Your task to perform on an android device: Open sound settings Image 0: 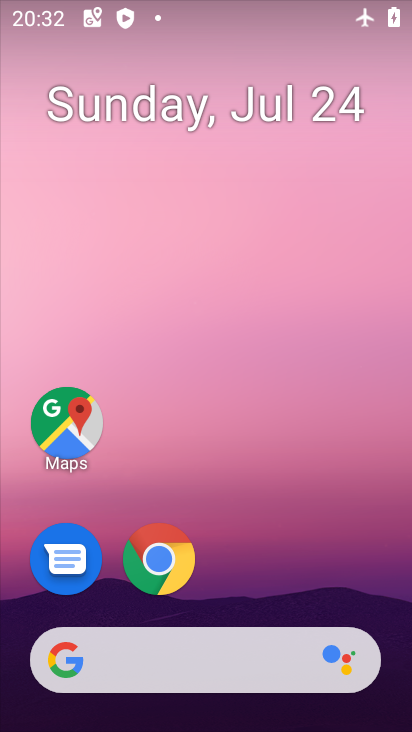
Step 0: press home button
Your task to perform on an android device: Open sound settings Image 1: 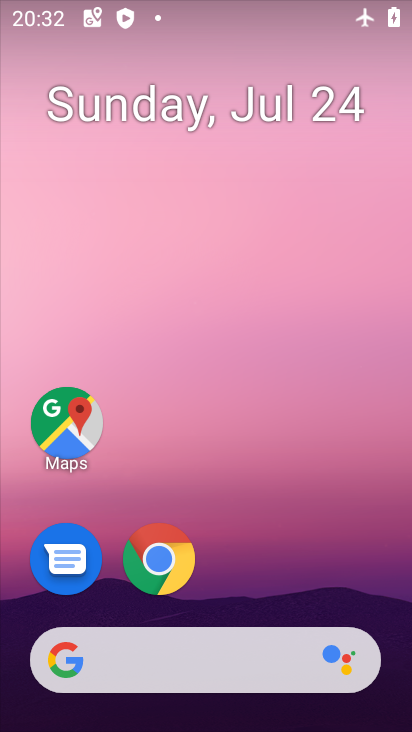
Step 1: drag from (374, 569) to (373, 95)
Your task to perform on an android device: Open sound settings Image 2: 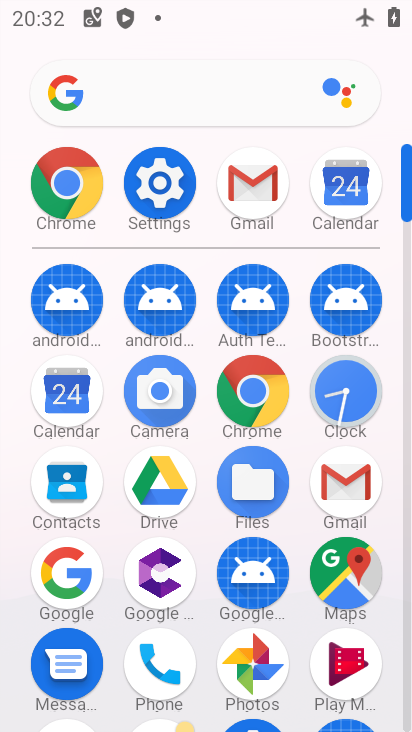
Step 2: click (171, 194)
Your task to perform on an android device: Open sound settings Image 3: 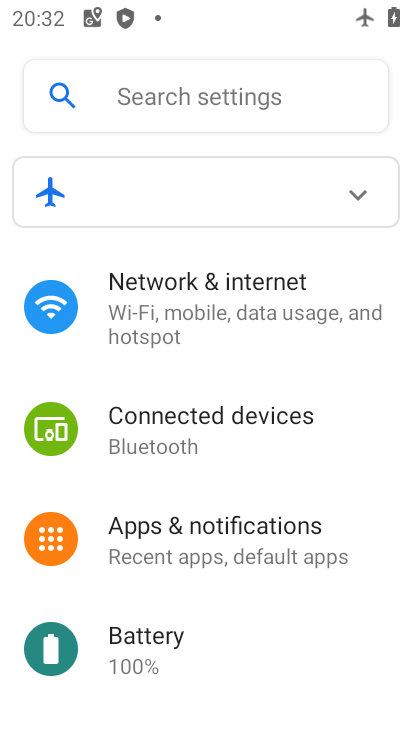
Step 3: drag from (365, 498) to (365, 406)
Your task to perform on an android device: Open sound settings Image 4: 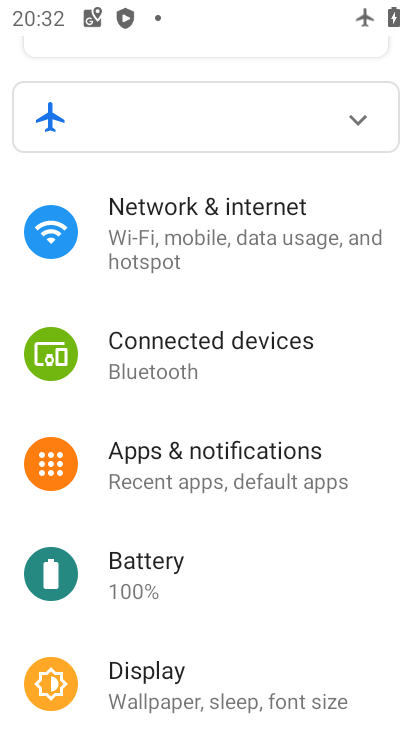
Step 4: drag from (377, 511) to (374, 379)
Your task to perform on an android device: Open sound settings Image 5: 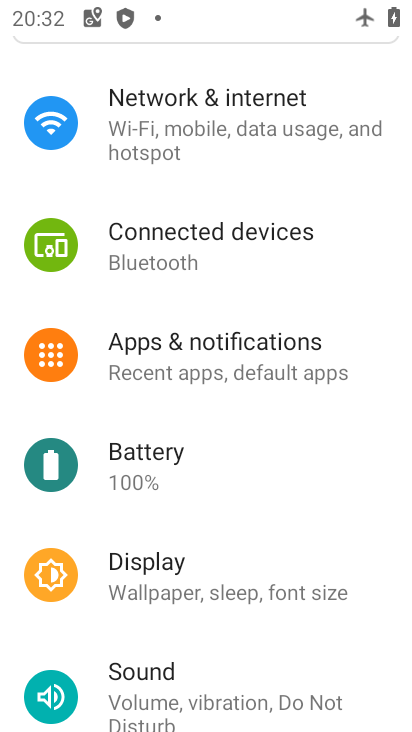
Step 5: drag from (372, 472) to (369, 386)
Your task to perform on an android device: Open sound settings Image 6: 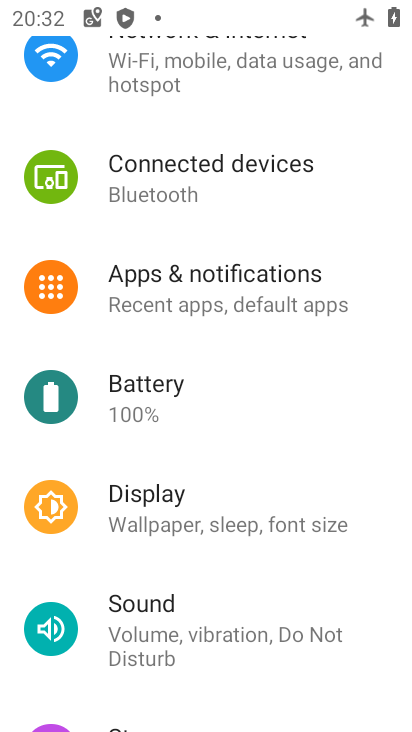
Step 6: drag from (383, 485) to (388, 322)
Your task to perform on an android device: Open sound settings Image 7: 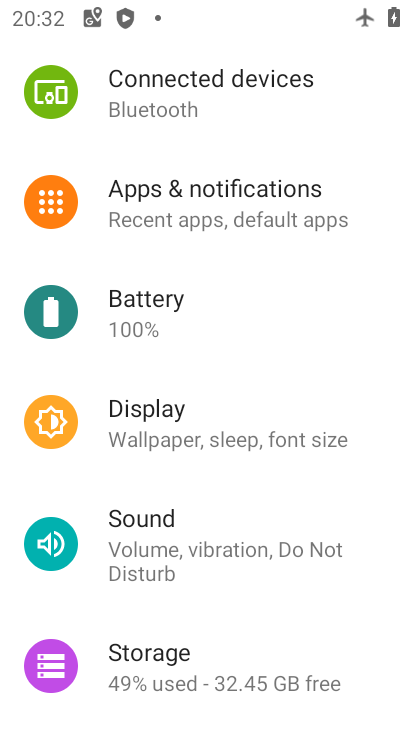
Step 7: drag from (373, 441) to (370, 355)
Your task to perform on an android device: Open sound settings Image 8: 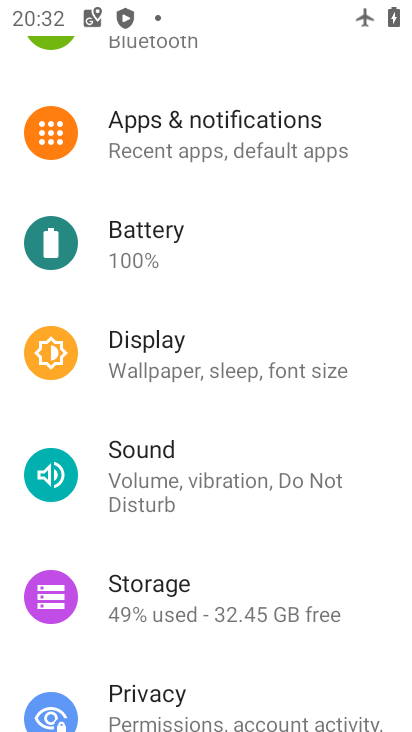
Step 8: drag from (353, 424) to (352, 312)
Your task to perform on an android device: Open sound settings Image 9: 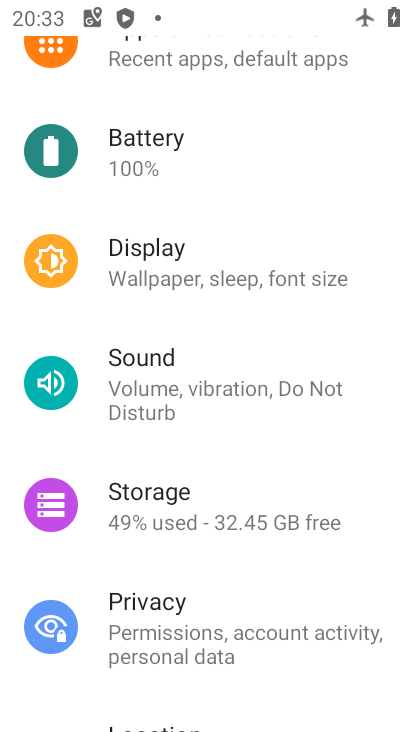
Step 9: drag from (367, 427) to (368, 311)
Your task to perform on an android device: Open sound settings Image 10: 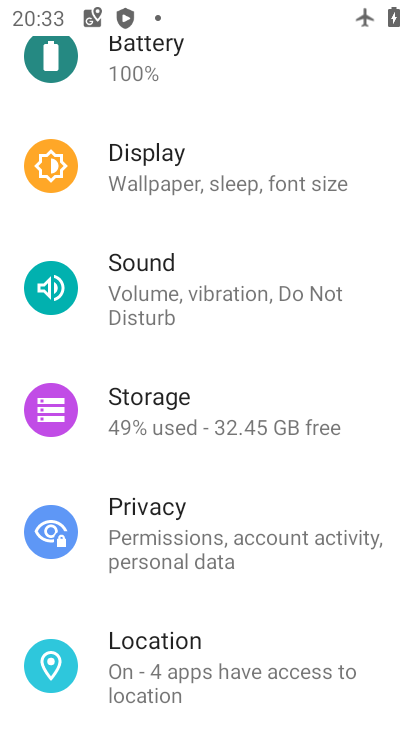
Step 10: drag from (366, 352) to (362, 263)
Your task to perform on an android device: Open sound settings Image 11: 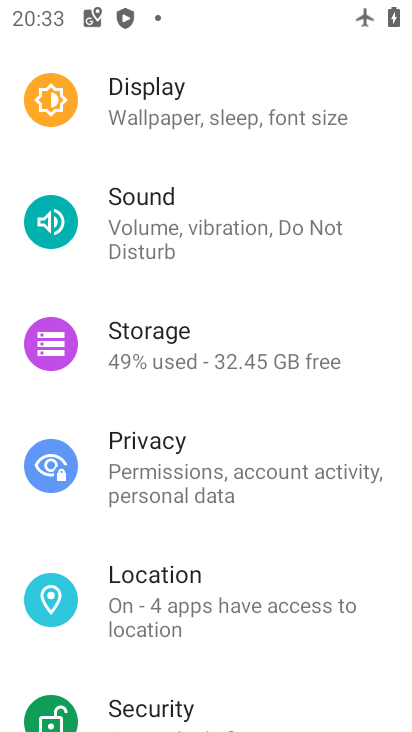
Step 11: click (349, 238)
Your task to perform on an android device: Open sound settings Image 12: 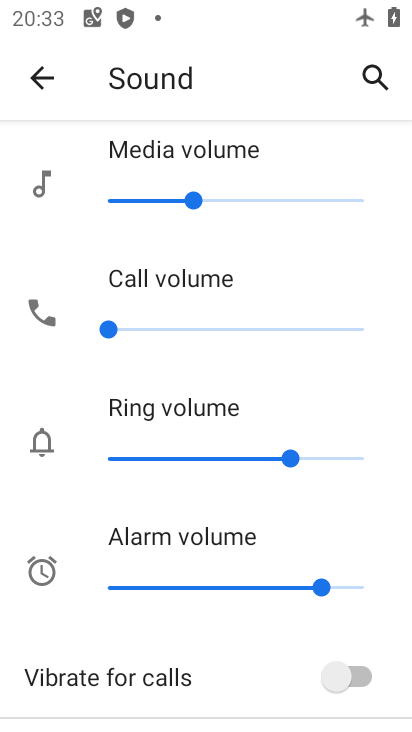
Step 12: task complete